Your task to perform on an android device: Open the phone app and click the voicemail tab. Image 0: 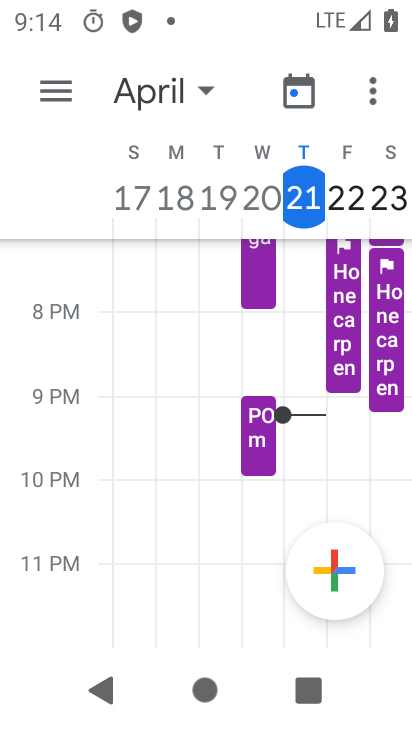
Step 0: press home button
Your task to perform on an android device: Open the phone app and click the voicemail tab. Image 1: 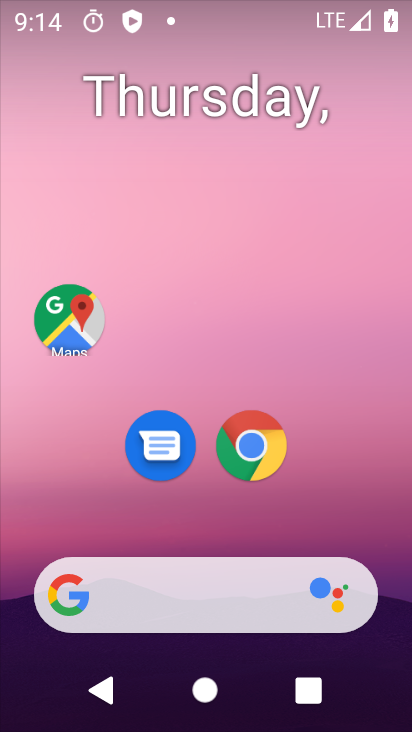
Step 1: drag from (382, 564) to (333, 5)
Your task to perform on an android device: Open the phone app and click the voicemail tab. Image 2: 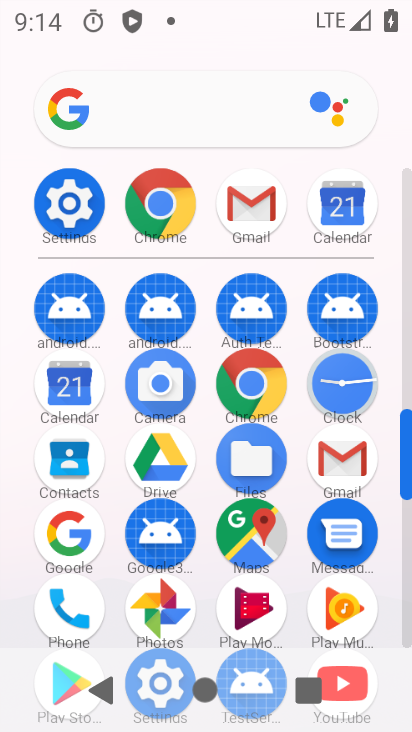
Step 2: click (63, 610)
Your task to perform on an android device: Open the phone app and click the voicemail tab. Image 3: 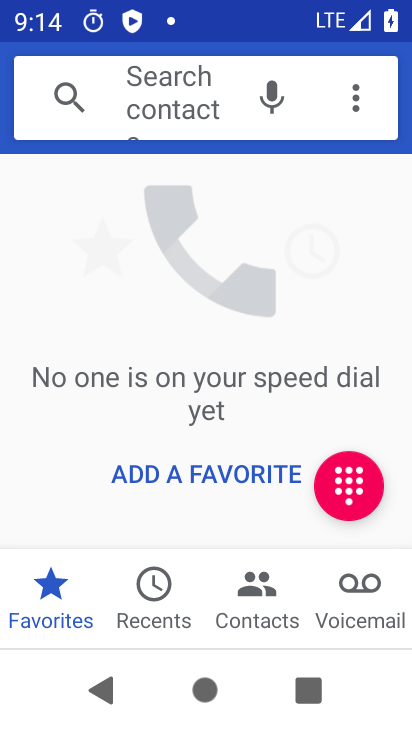
Step 3: click (378, 611)
Your task to perform on an android device: Open the phone app and click the voicemail tab. Image 4: 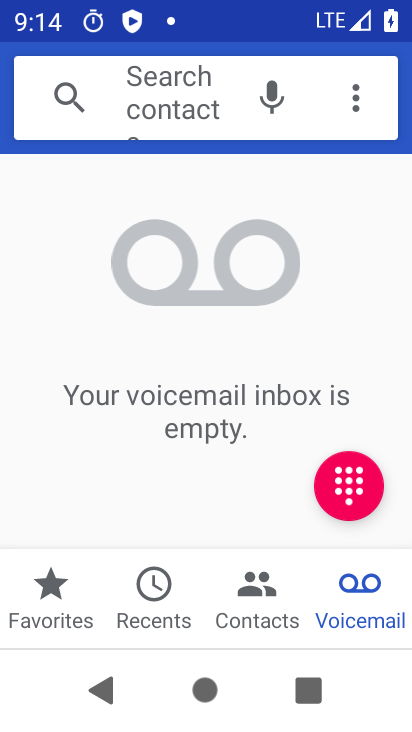
Step 4: task complete